Your task to perform on an android device: When is my next meeting? Image 0: 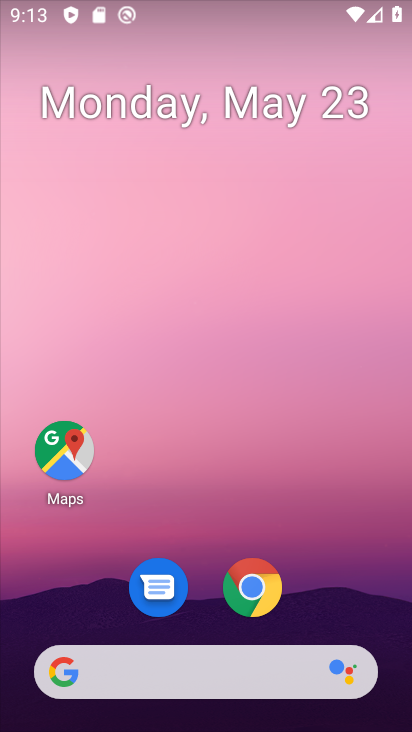
Step 0: drag from (376, 600) to (286, 199)
Your task to perform on an android device: When is my next meeting? Image 1: 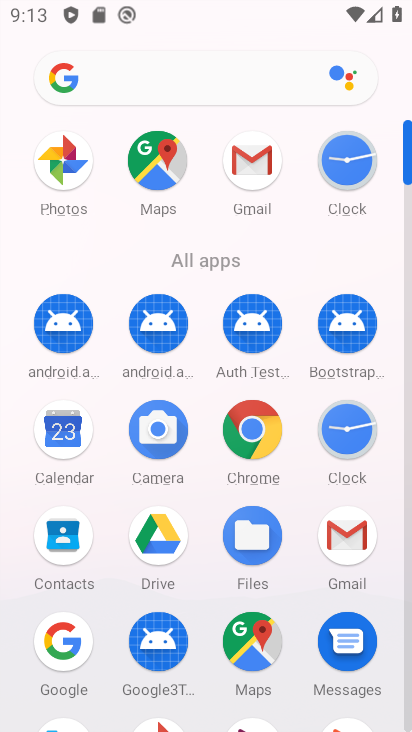
Step 1: click (53, 431)
Your task to perform on an android device: When is my next meeting? Image 2: 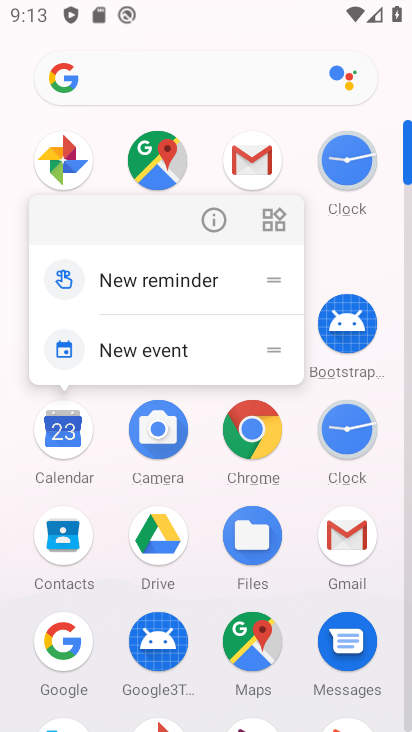
Step 2: click (53, 431)
Your task to perform on an android device: When is my next meeting? Image 3: 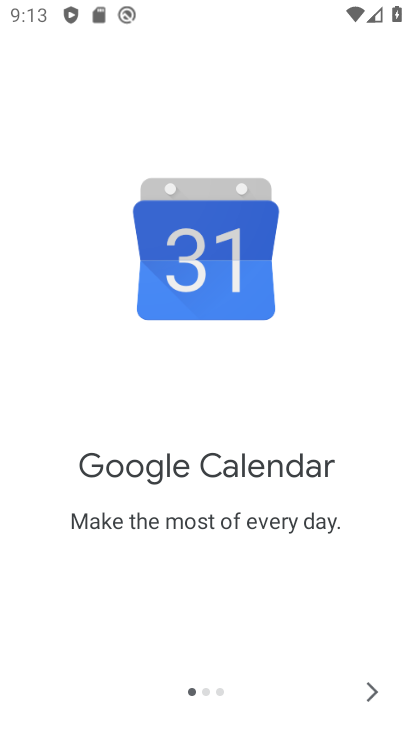
Step 3: click (355, 700)
Your task to perform on an android device: When is my next meeting? Image 4: 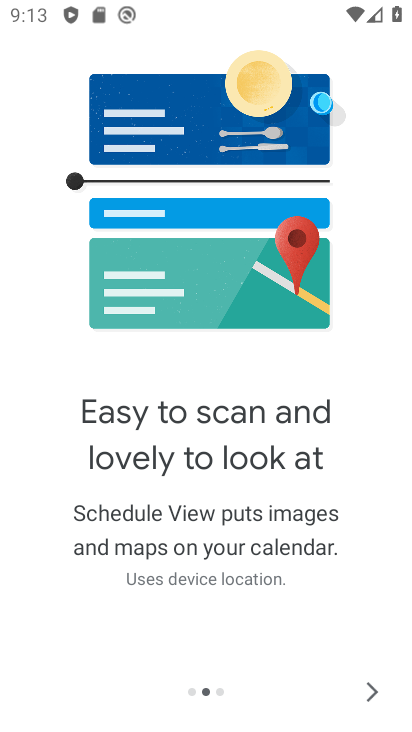
Step 4: click (356, 686)
Your task to perform on an android device: When is my next meeting? Image 5: 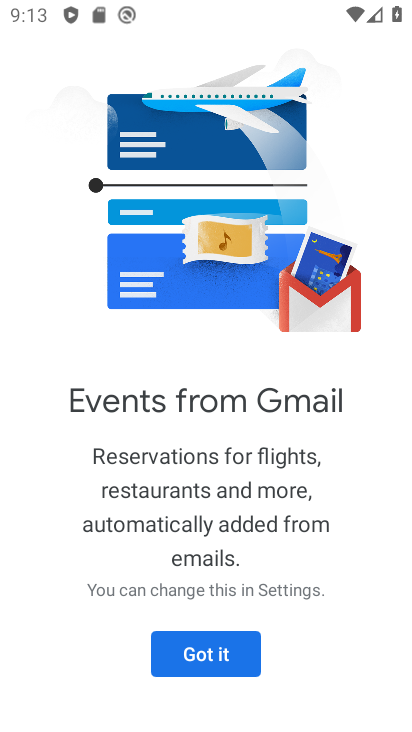
Step 5: click (237, 655)
Your task to perform on an android device: When is my next meeting? Image 6: 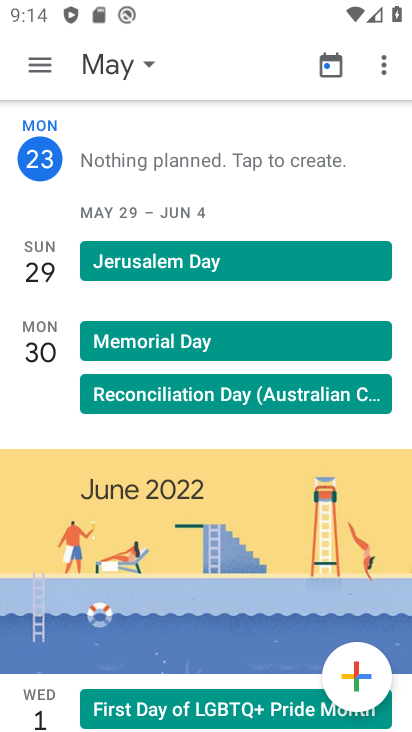
Step 6: click (126, 79)
Your task to perform on an android device: When is my next meeting? Image 7: 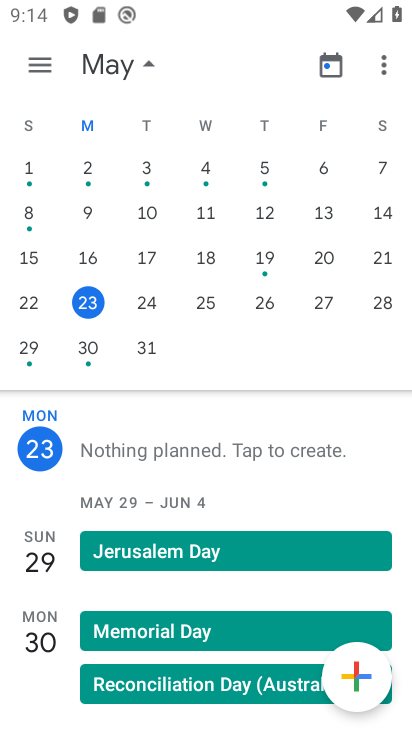
Step 7: click (36, 357)
Your task to perform on an android device: When is my next meeting? Image 8: 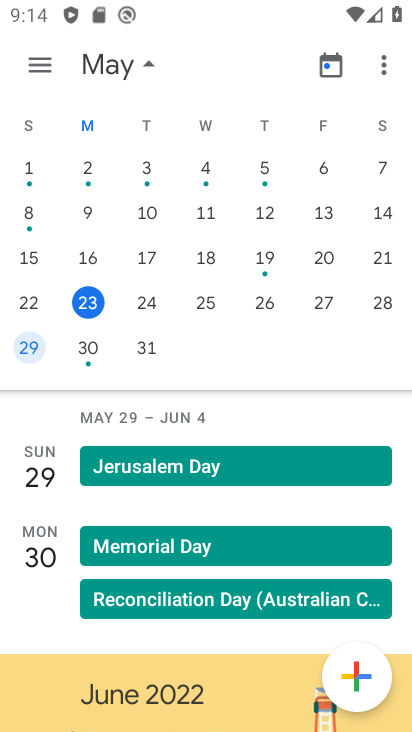
Step 8: task complete